Your task to perform on an android device: add a contact Image 0: 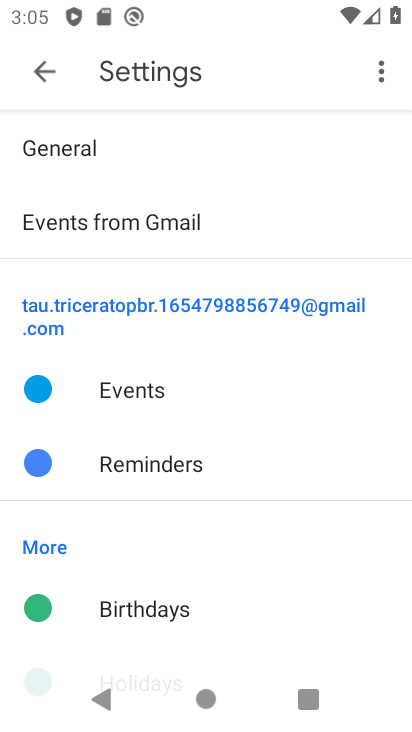
Step 0: press home button
Your task to perform on an android device: add a contact Image 1: 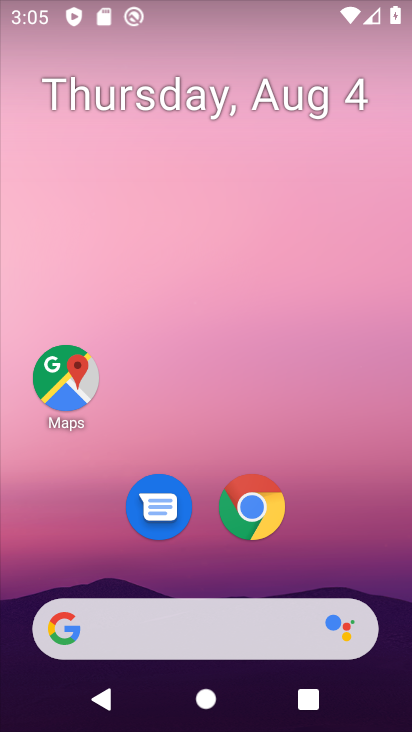
Step 1: drag from (45, 694) to (164, 196)
Your task to perform on an android device: add a contact Image 2: 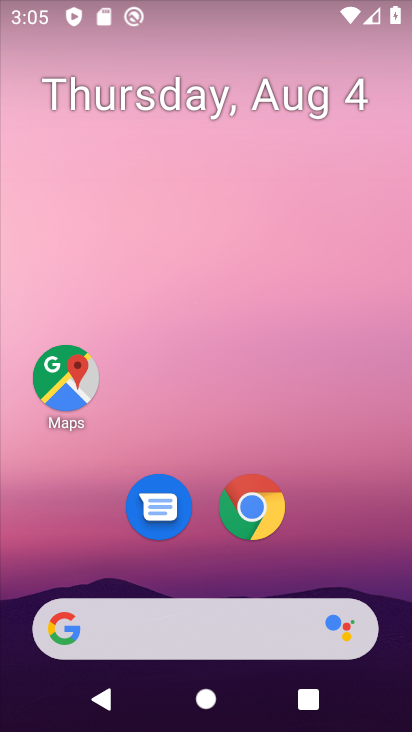
Step 2: drag from (71, 693) to (175, 44)
Your task to perform on an android device: add a contact Image 3: 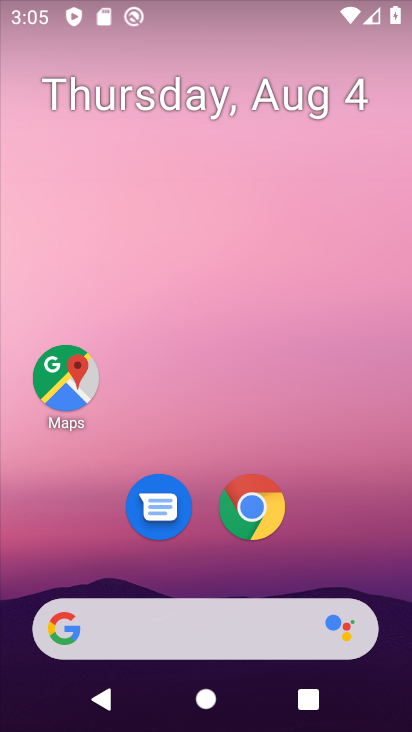
Step 3: drag from (55, 709) to (133, 117)
Your task to perform on an android device: add a contact Image 4: 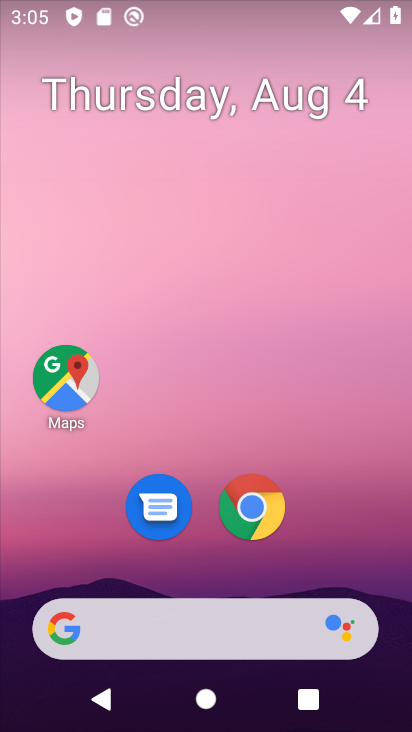
Step 4: drag from (68, 689) to (186, 0)
Your task to perform on an android device: add a contact Image 5: 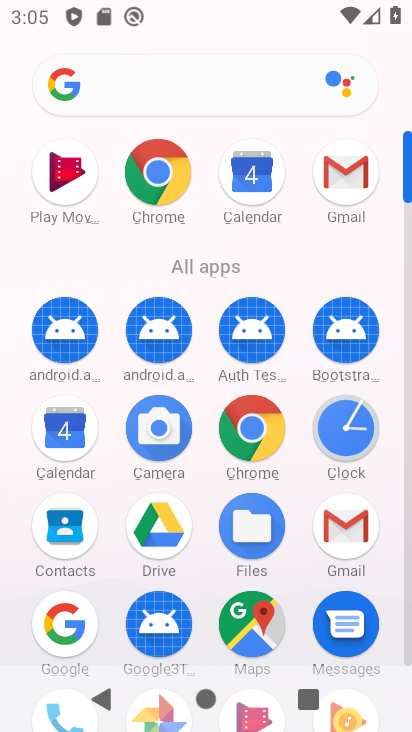
Step 5: click (43, 540)
Your task to perform on an android device: add a contact Image 6: 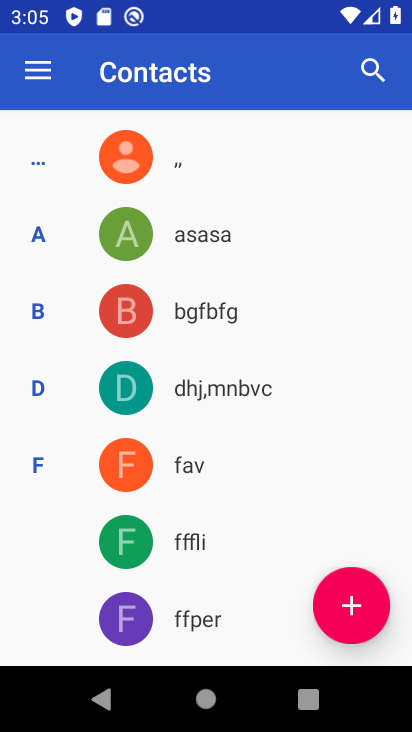
Step 6: click (330, 589)
Your task to perform on an android device: add a contact Image 7: 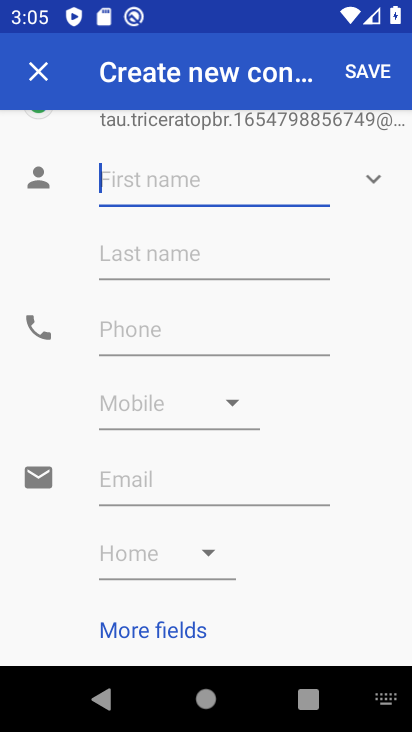
Step 7: type "jhiy"
Your task to perform on an android device: add a contact Image 8: 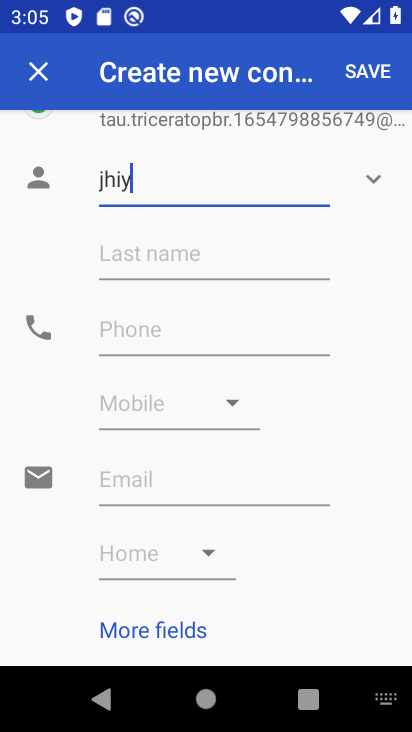
Step 8: type ""
Your task to perform on an android device: add a contact Image 9: 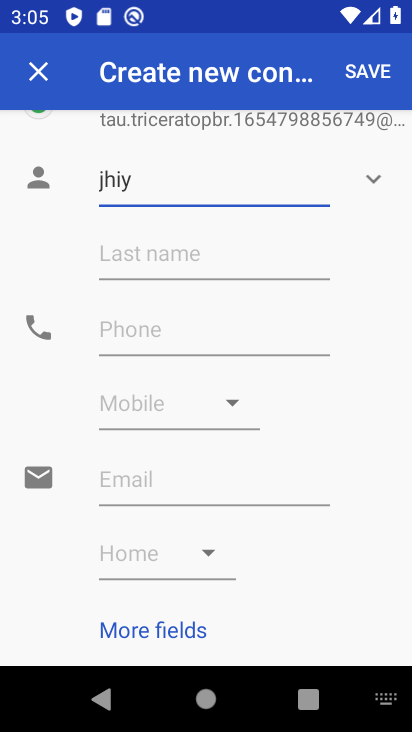
Step 9: click (354, 72)
Your task to perform on an android device: add a contact Image 10: 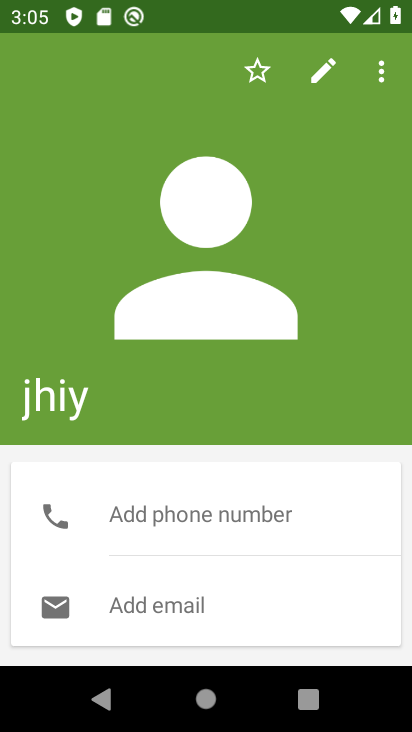
Step 10: task complete